Your task to perform on an android device: check storage Image 0: 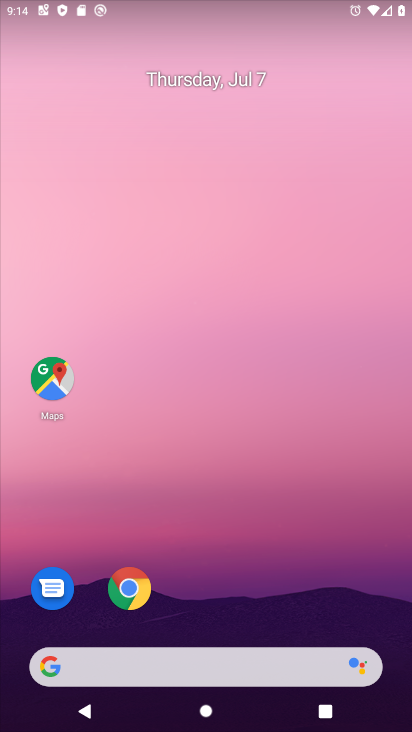
Step 0: press home button
Your task to perform on an android device: check storage Image 1: 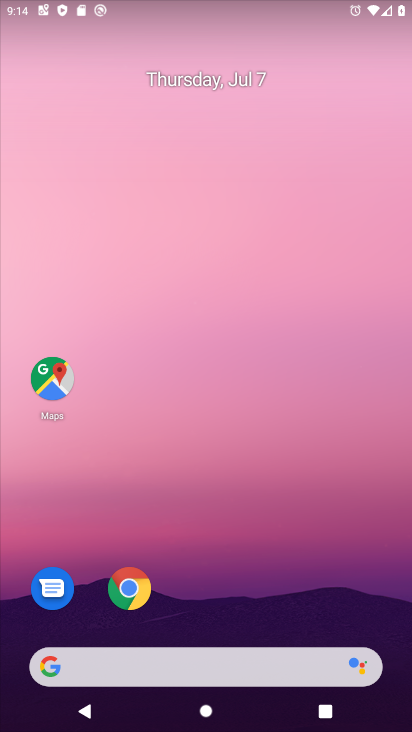
Step 1: drag from (219, 635) to (260, 0)
Your task to perform on an android device: check storage Image 2: 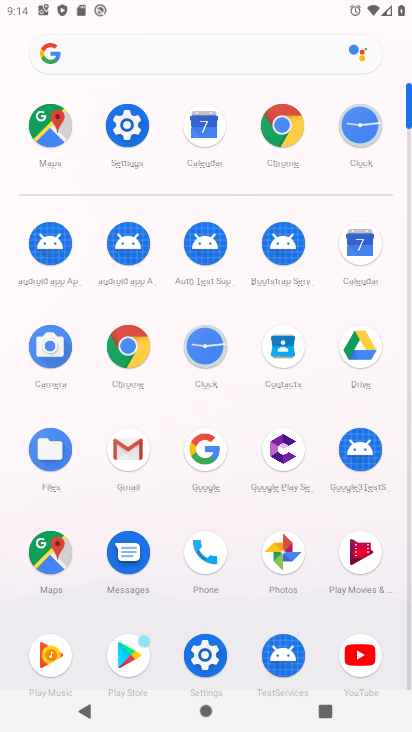
Step 2: click (127, 119)
Your task to perform on an android device: check storage Image 3: 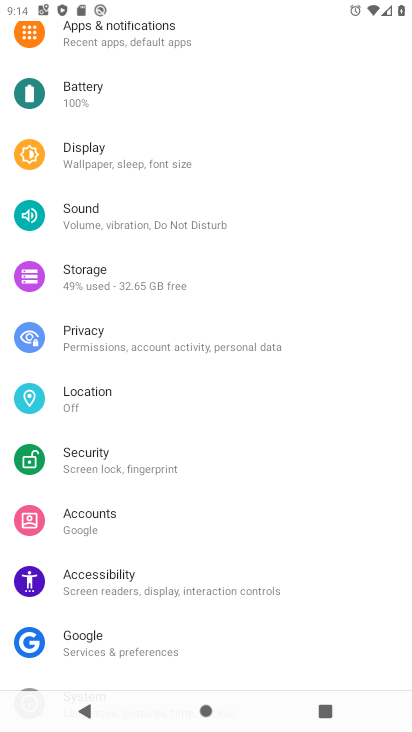
Step 3: click (117, 268)
Your task to perform on an android device: check storage Image 4: 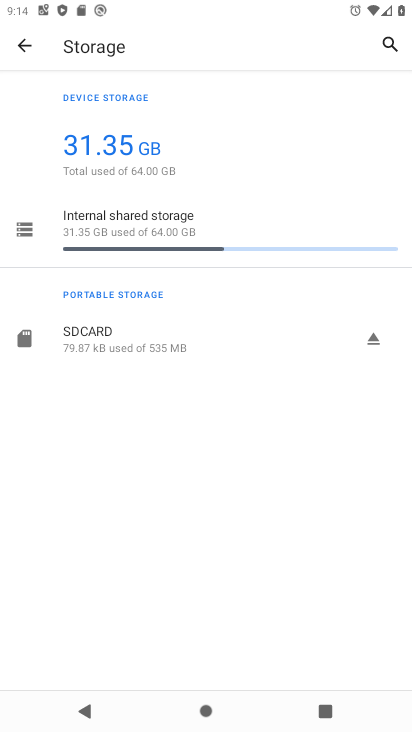
Step 4: task complete